Your task to perform on an android device: Open Android settings Image 0: 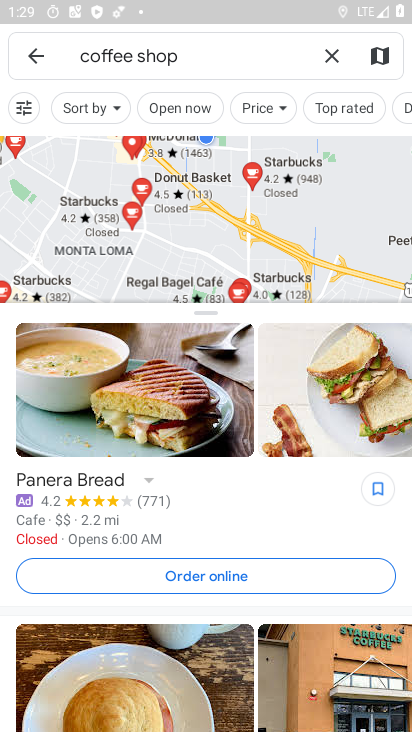
Step 0: press home button
Your task to perform on an android device: Open Android settings Image 1: 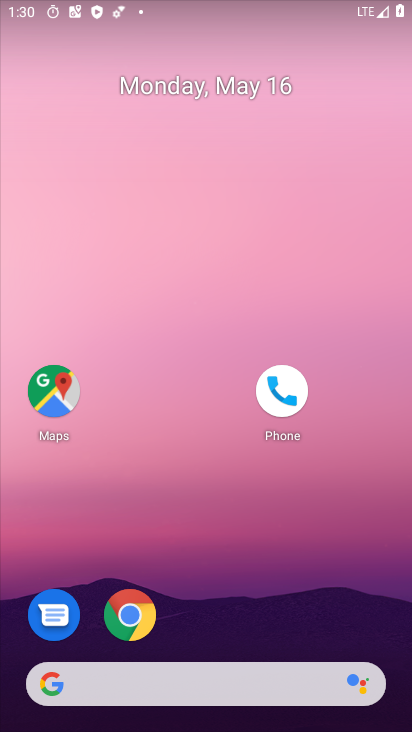
Step 1: drag from (225, 500) to (225, 7)
Your task to perform on an android device: Open Android settings Image 2: 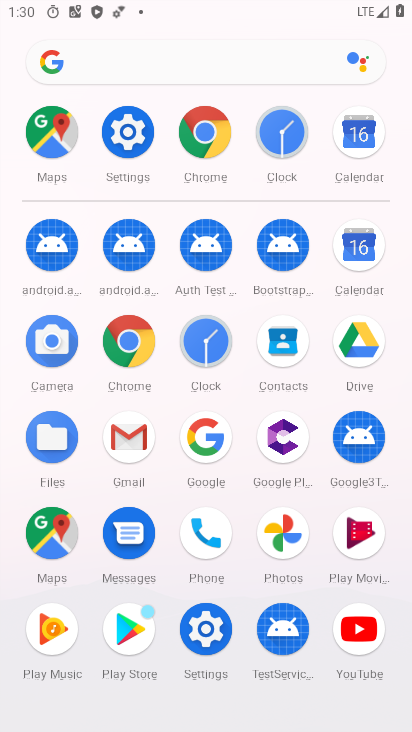
Step 2: click (114, 99)
Your task to perform on an android device: Open Android settings Image 3: 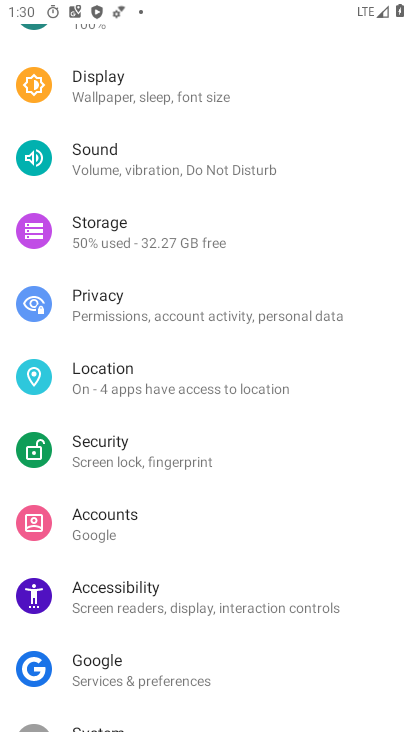
Step 3: drag from (234, 664) to (300, 66)
Your task to perform on an android device: Open Android settings Image 4: 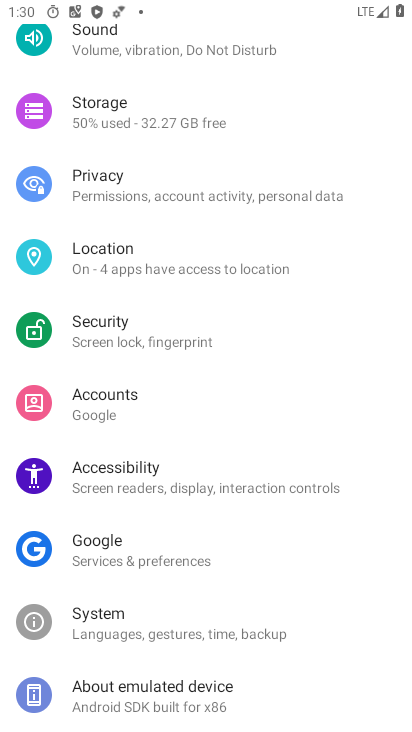
Step 4: click (307, 688)
Your task to perform on an android device: Open Android settings Image 5: 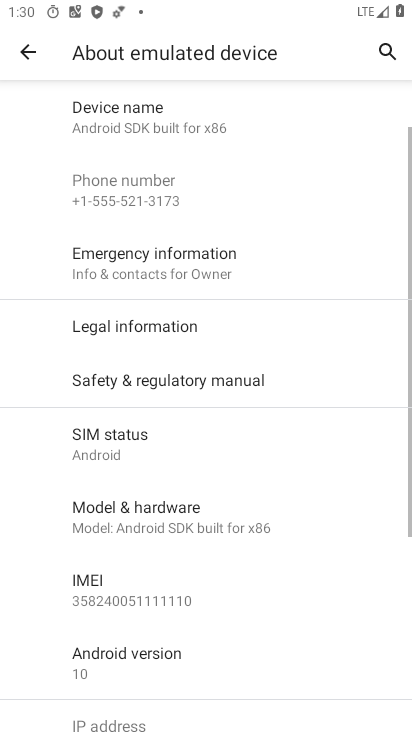
Step 5: drag from (307, 688) to (317, 222)
Your task to perform on an android device: Open Android settings Image 6: 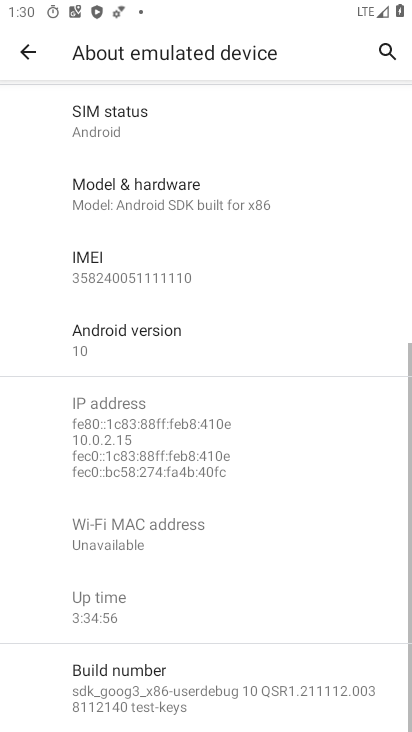
Step 6: click (158, 334)
Your task to perform on an android device: Open Android settings Image 7: 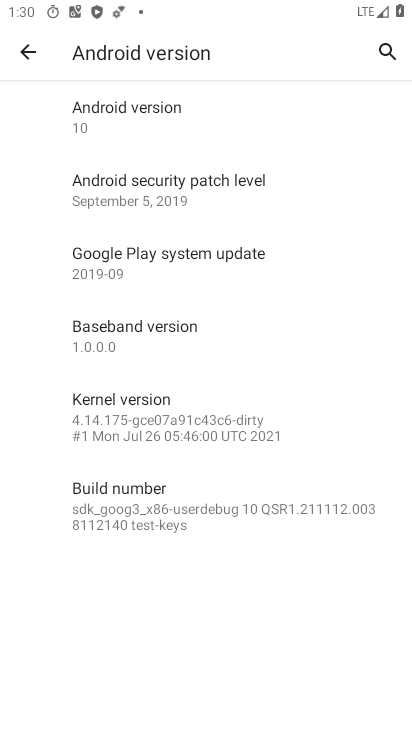
Step 7: task complete